Your task to perform on an android device: Open CNN.com Image 0: 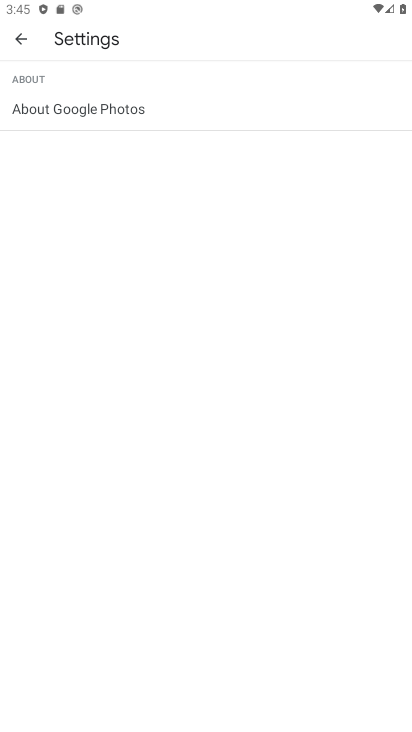
Step 0: press home button
Your task to perform on an android device: Open CNN.com Image 1: 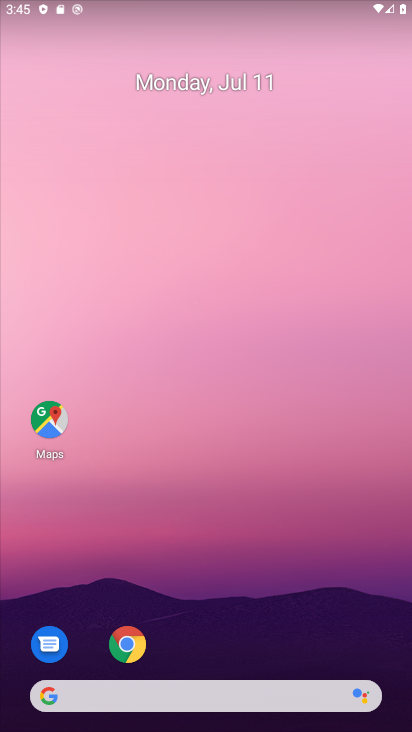
Step 1: click (129, 642)
Your task to perform on an android device: Open CNN.com Image 2: 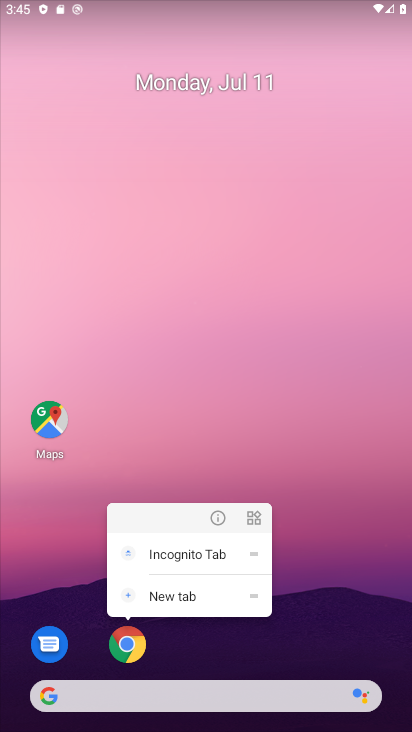
Step 2: click (126, 641)
Your task to perform on an android device: Open CNN.com Image 3: 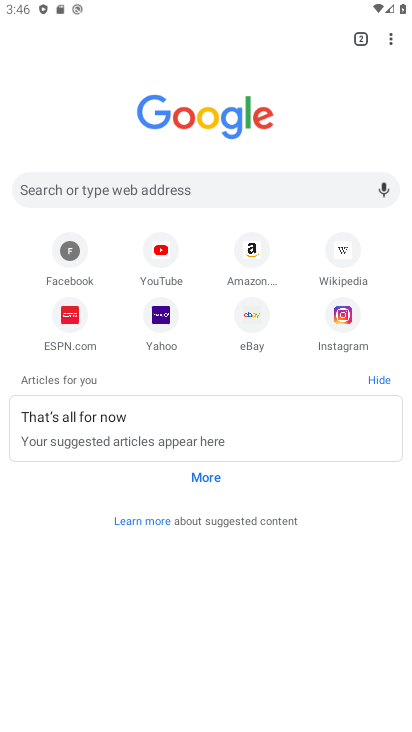
Step 3: click (156, 186)
Your task to perform on an android device: Open CNN.com Image 4: 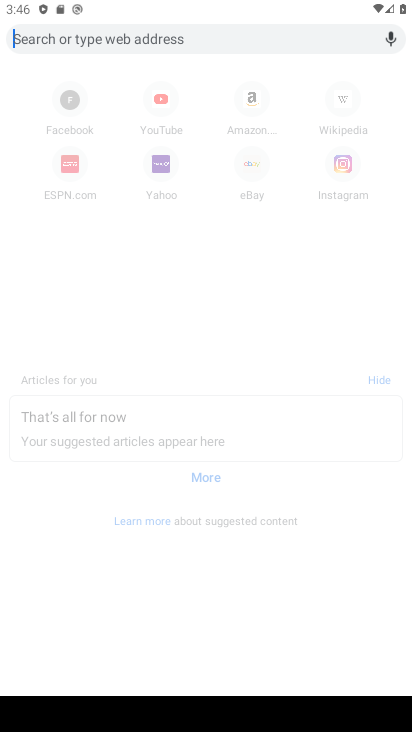
Step 4: type "cnn.com"
Your task to perform on an android device: Open CNN.com Image 5: 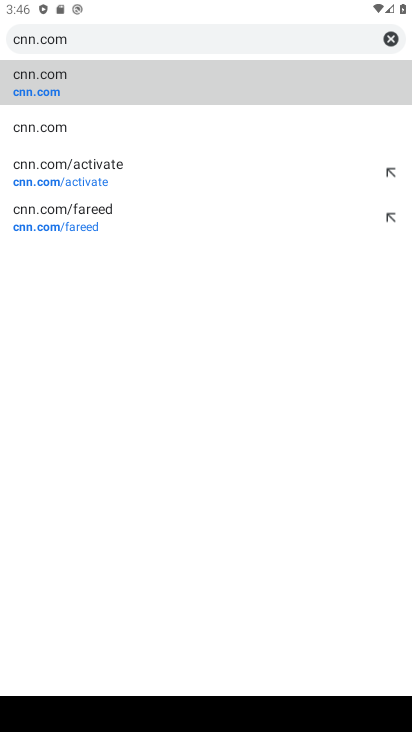
Step 5: click (70, 80)
Your task to perform on an android device: Open CNN.com Image 6: 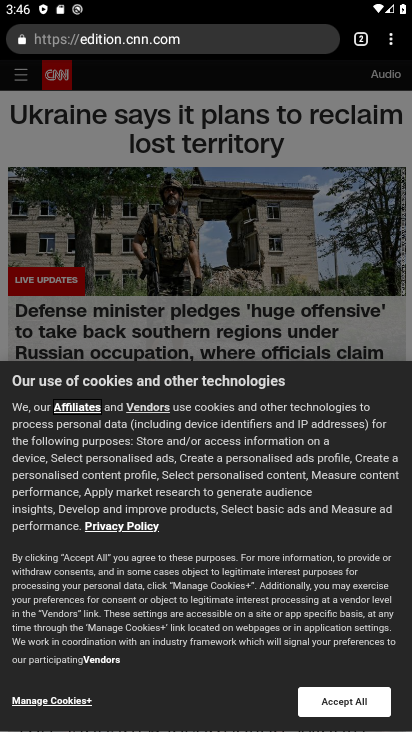
Step 6: click (360, 702)
Your task to perform on an android device: Open CNN.com Image 7: 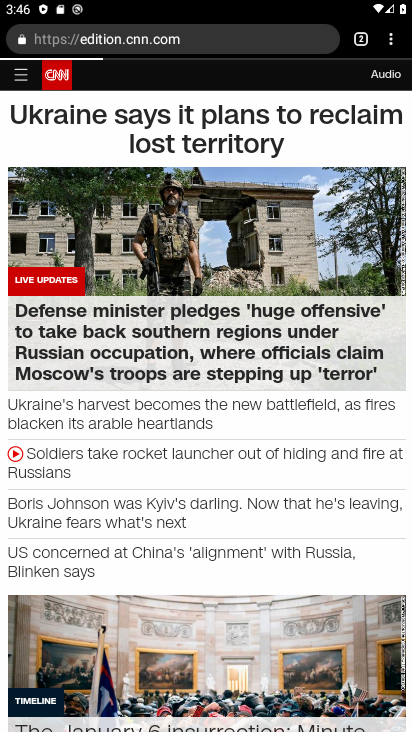
Step 7: task complete